Your task to perform on an android device: turn on javascript in the chrome app Image 0: 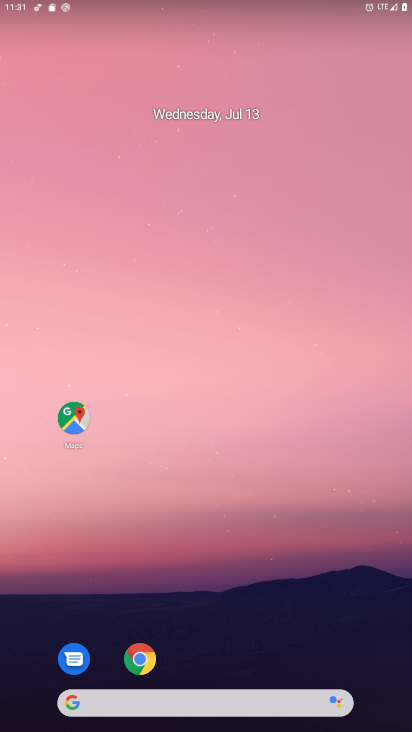
Step 0: press home button
Your task to perform on an android device: turn on javascript in the chrome app Image 1: 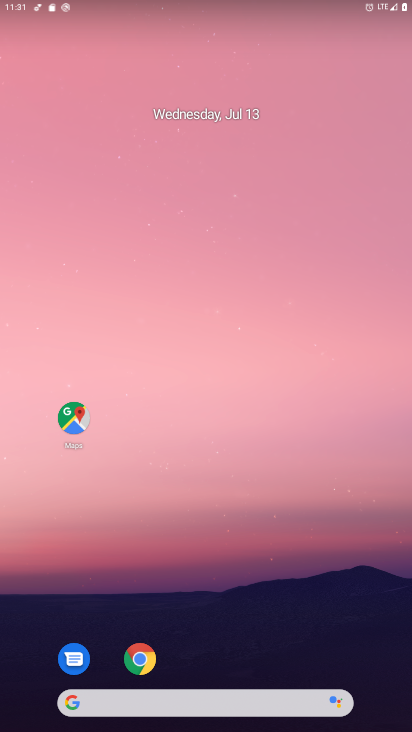
Step 1: click (137, 653)
Your task to perform on an android device: turn on javascript in the chrome app Image 2: 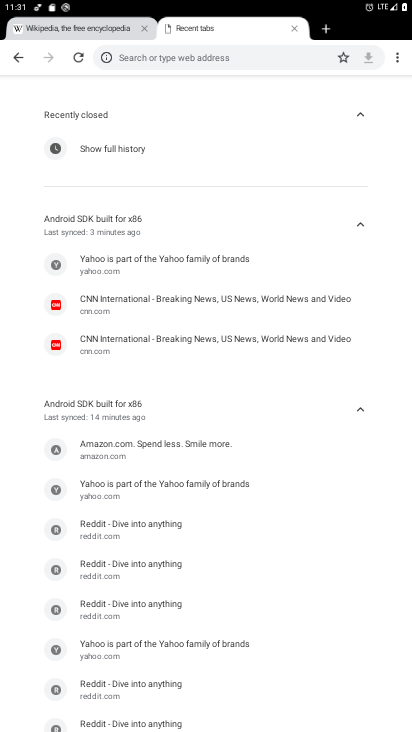
Step 2: click (400, 57)
Your task to perform on an android device: turn on javascript in the chrome app Image 3: 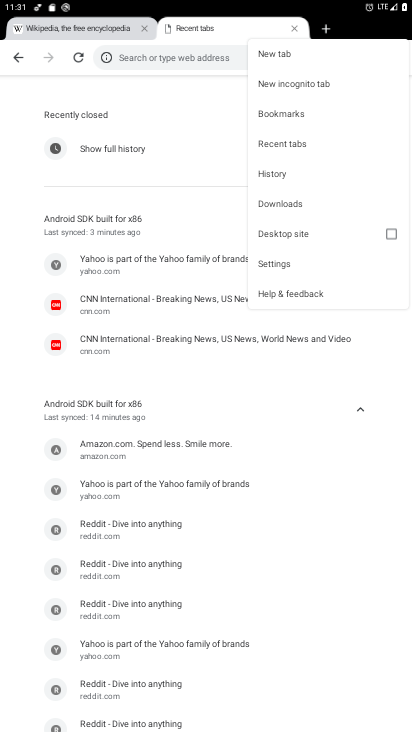
Step 3: click (296, 261)
Your task to perform on an android device: turn on javascript in the chrome app Image 4: 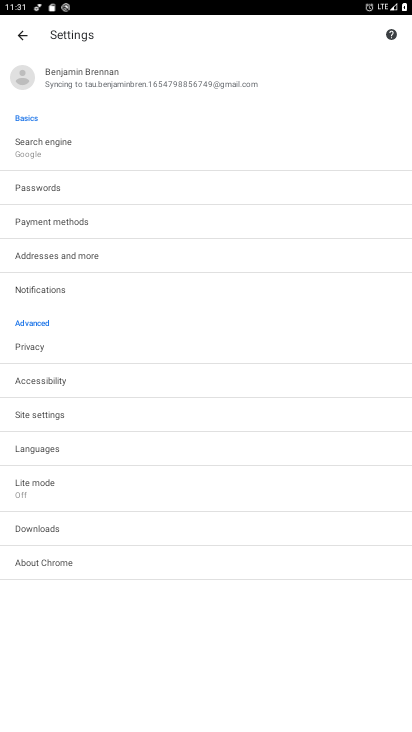
Step 4: click (75, 415)
Your task to perform on an android device: turn on javascript in the chrome app Image 5: 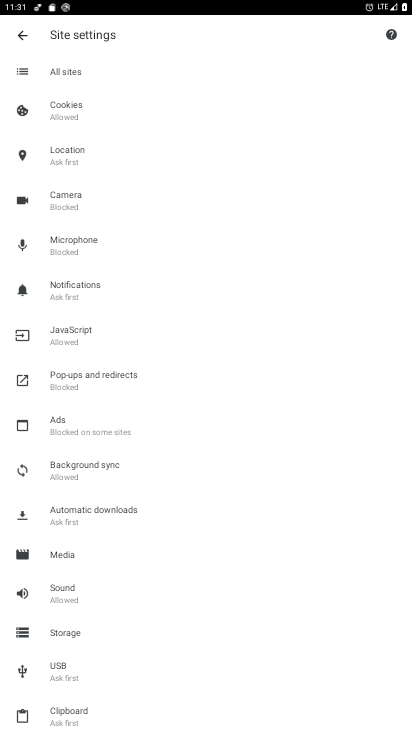
Step 5: click (100, 328)
Your task to perform on an android device: turn on javascript in the chrome app Image 6: 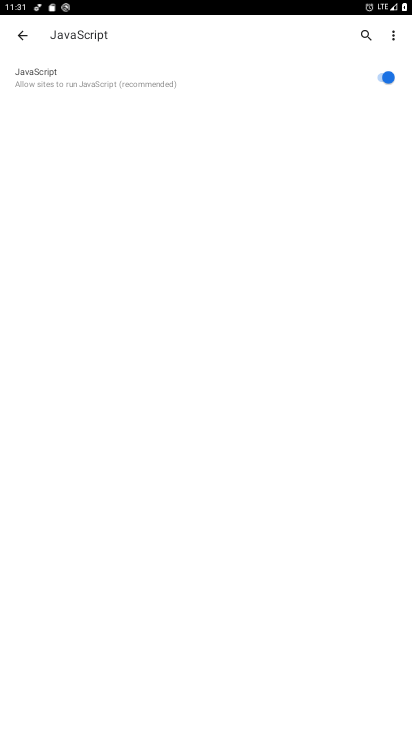
Step 6: task complete